Your task to perform on an android device: Open the web browser Image 0: 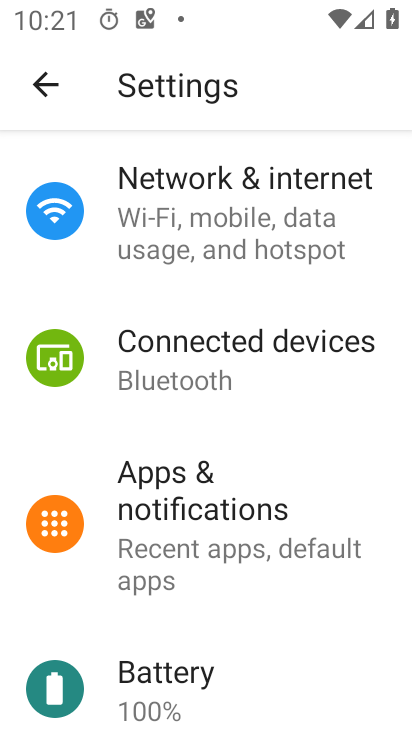
Step 0: press home button
Your task to perform on an android device: Open the web browser Image 1: 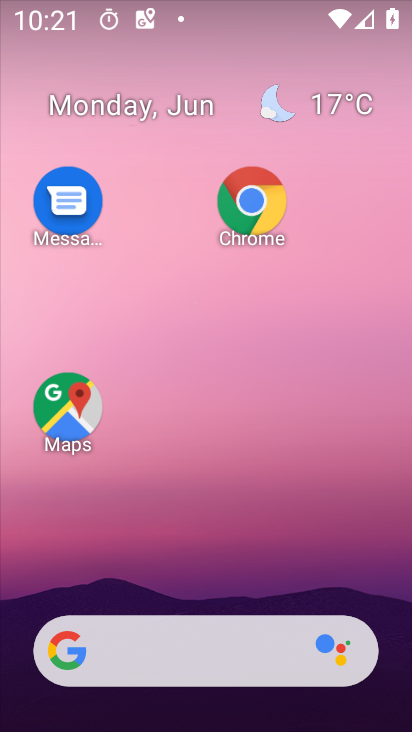
Step 1: click (196, 638)
Your task to perform on an android device: Open the web browser Image 2: 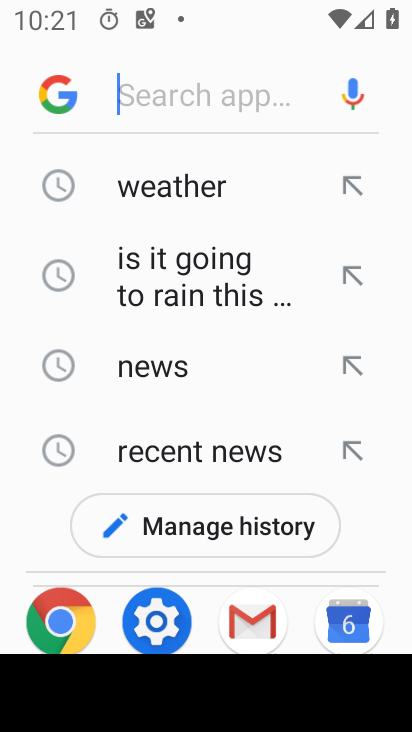
Step 2: task complete